Your task to perform on an android device: uninstall "Google Keep" Image 0: 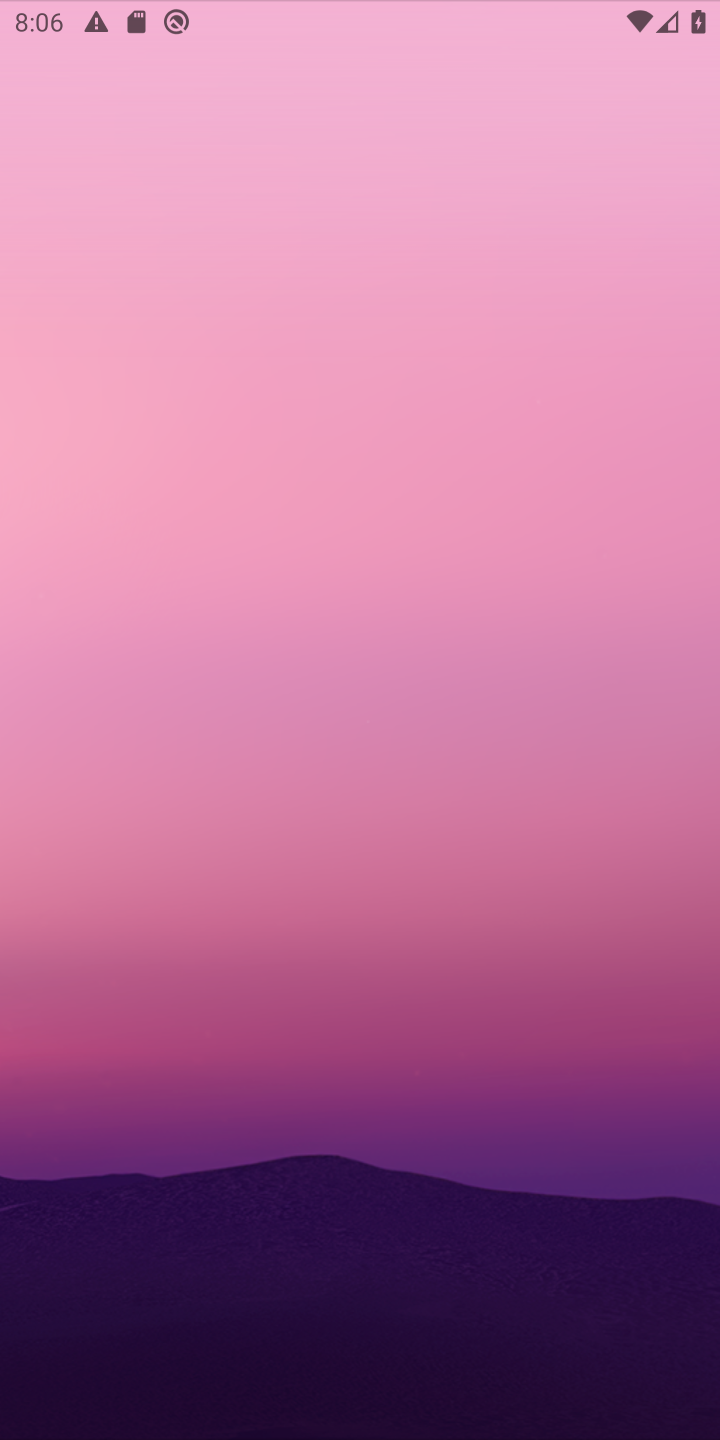
Step 0: click (560, 78)
Your task to perform on an android device: uninstall "Google Keep" Image 1: 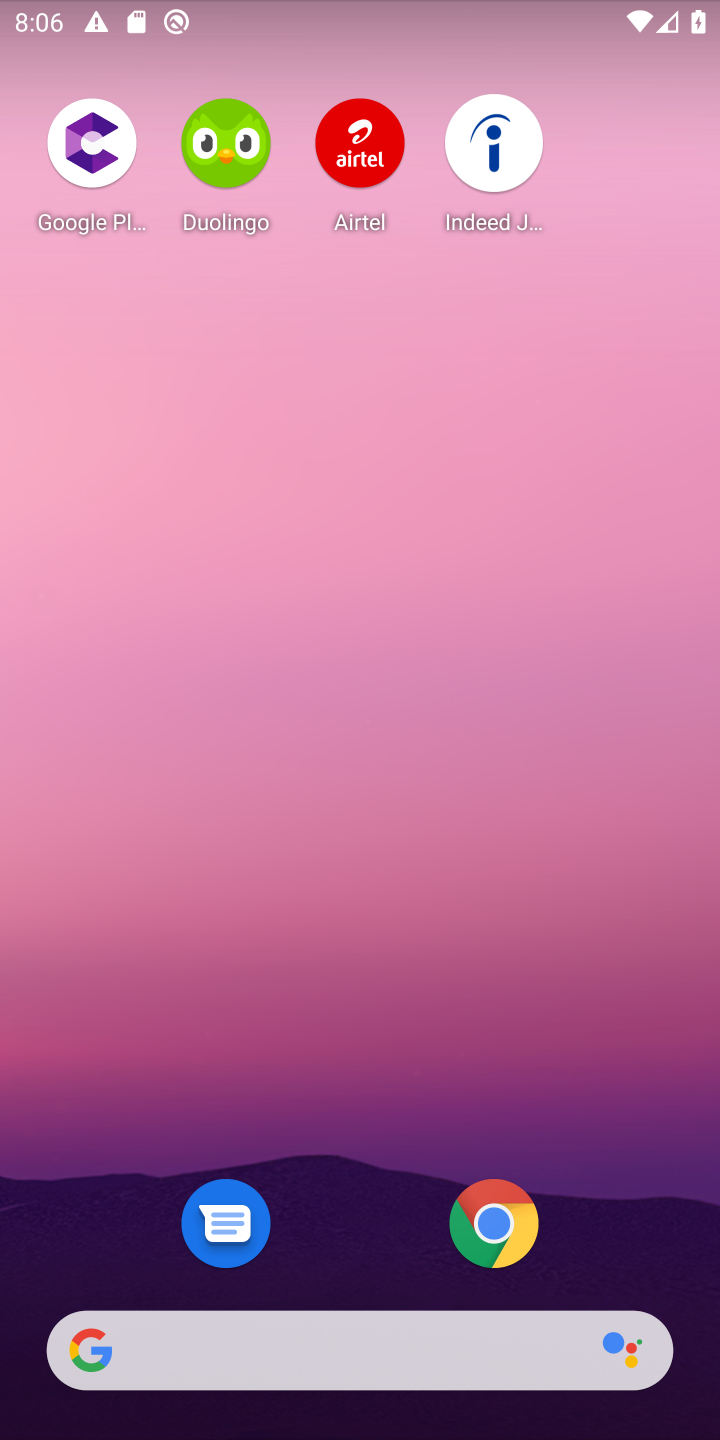
Step 1: click (563, 80)
Your task to perform on an android device: uninstall "Google Keep" Image 2: 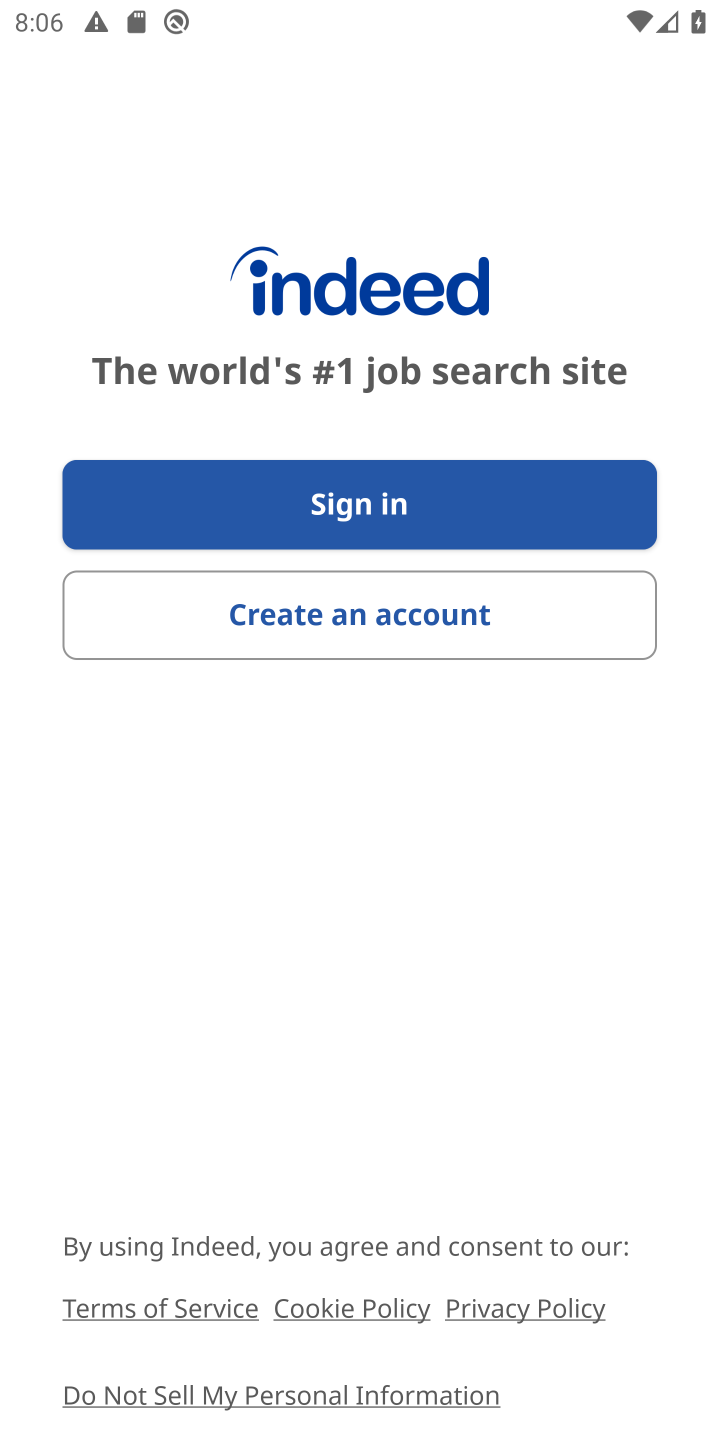
Step 2: press home button
Your task to perform on an android device: uninstall "Google Keep" Image 3: 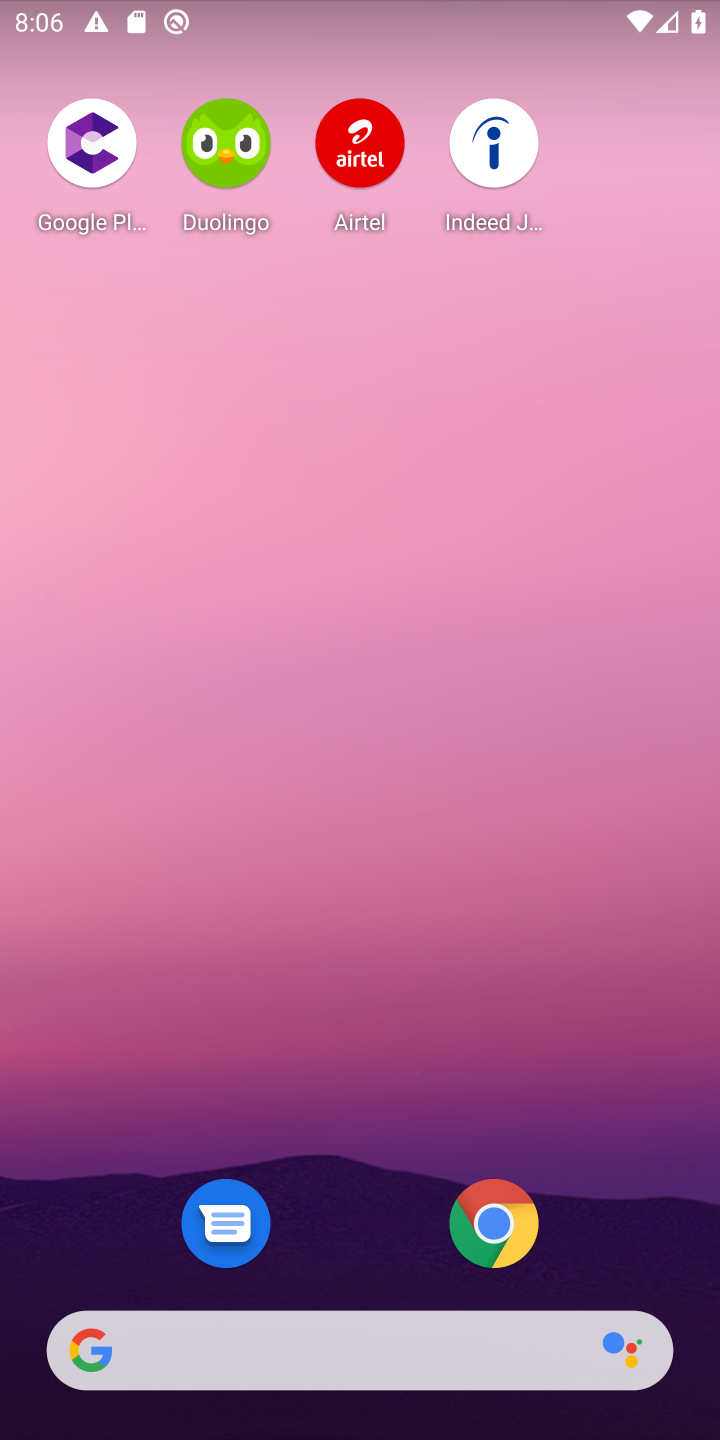
Step 3: drag from (358, 1193) to (389, 124)
Your task to perform on an android device: uninstall "Google Keep" Image 4: 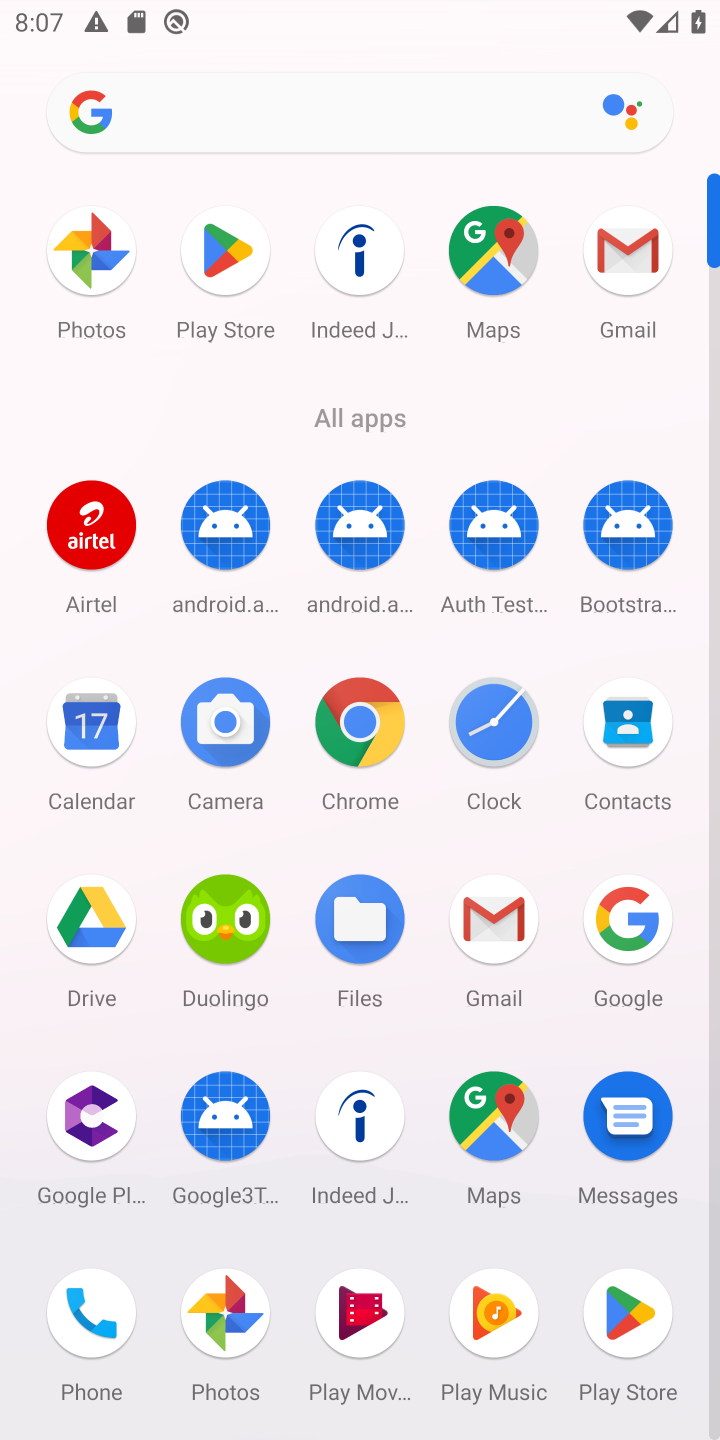
Step 4: click (616, 1304)
Your task to perform on an android device: uninstall "Google Keep" Image 5: 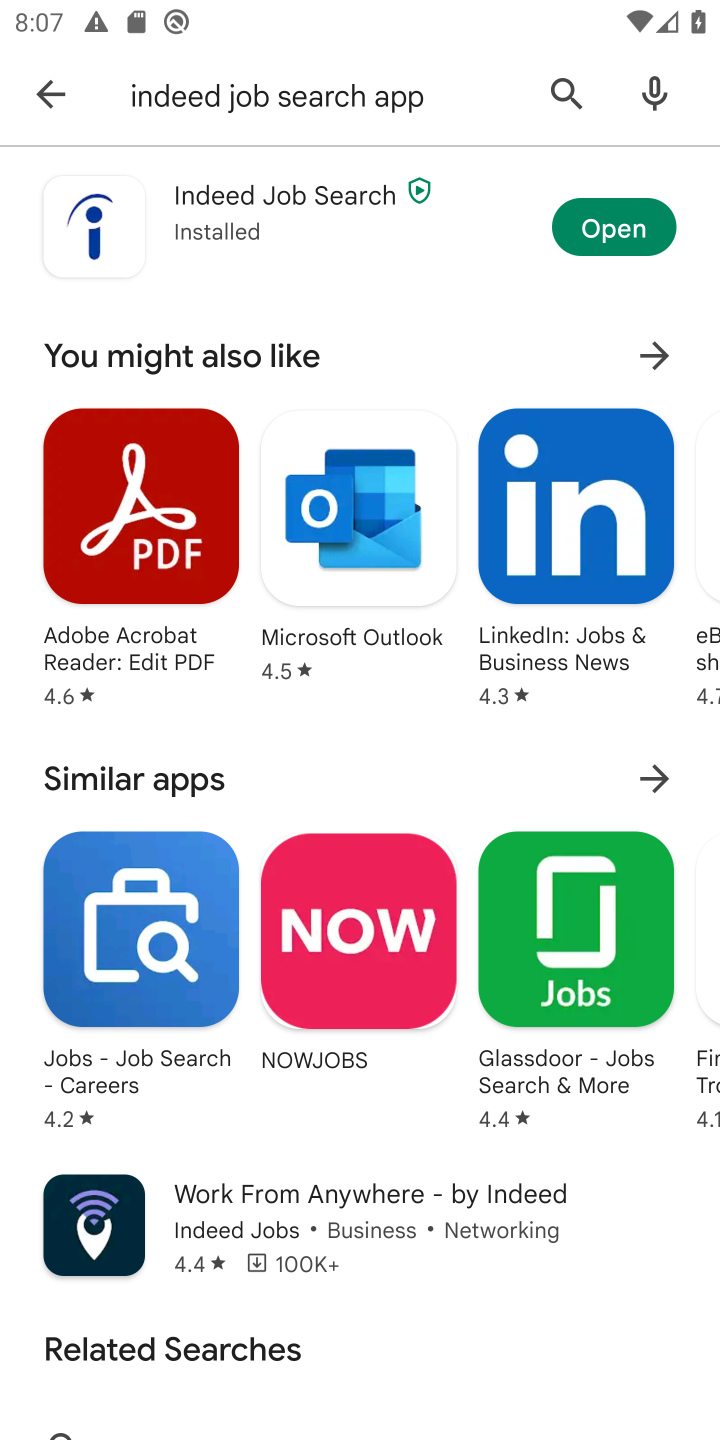
Step 5: click (564, 70)
Your task to perform on an android device: uninstall "Google Keep" Image 6: 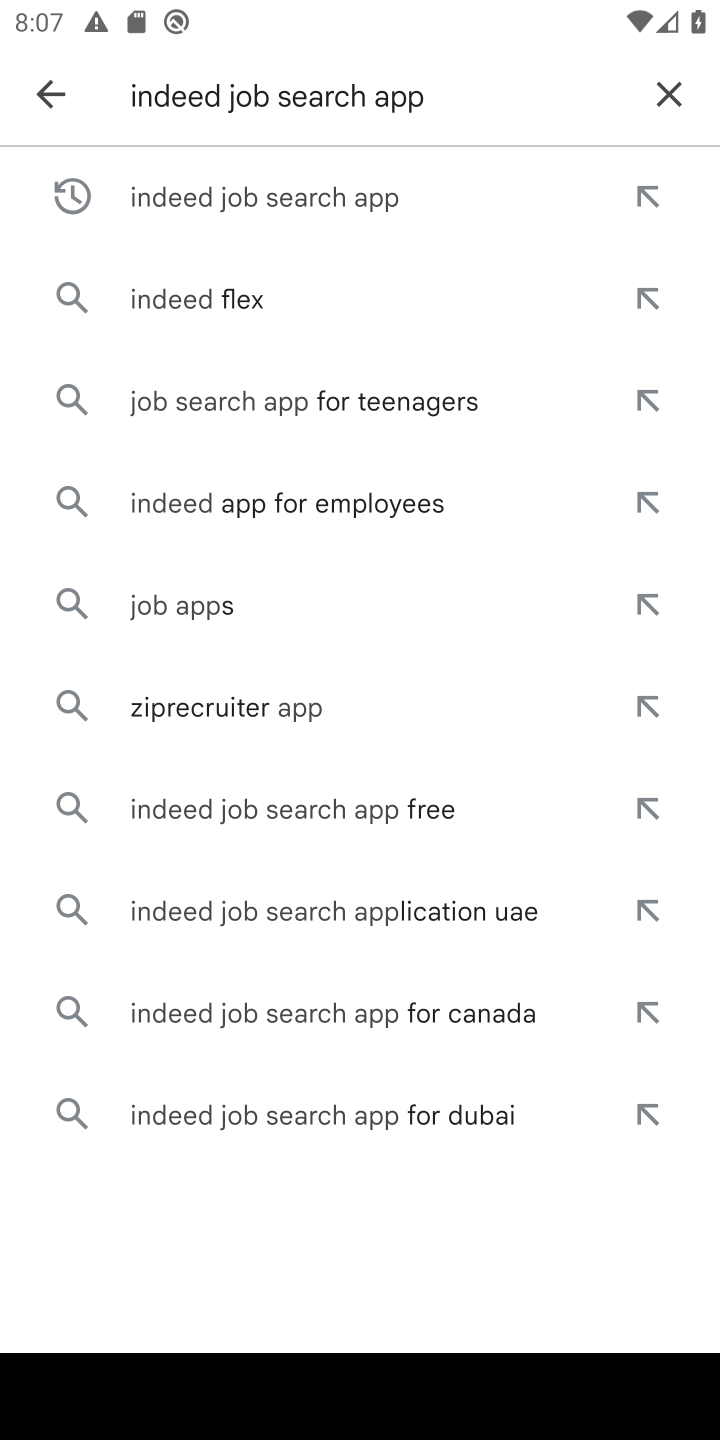
Step 6: click (660, 83)
Your task to perform on an android device: uninstall "Google Keep" Image 7: 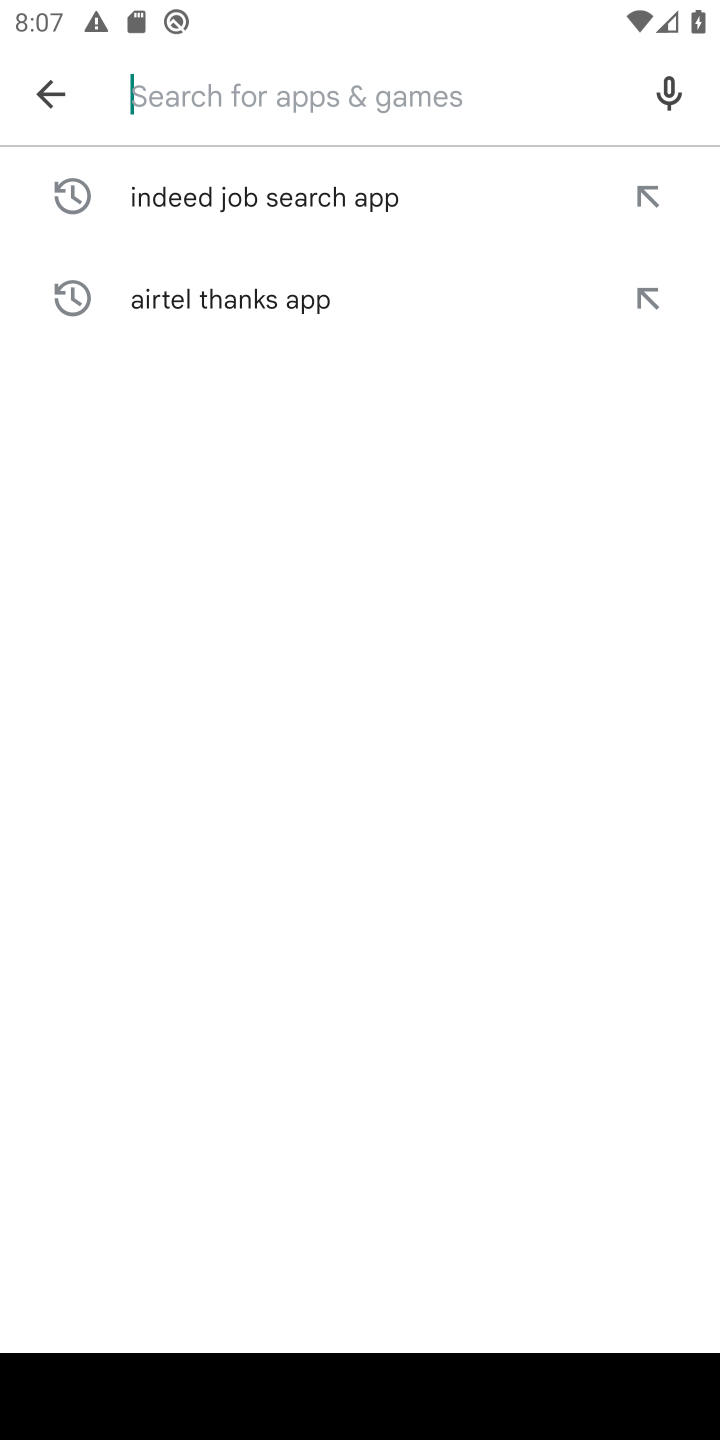
Step 7: click (664, 89)
Your task to perform on an android device: uninstall "Google Keep" Image 8: 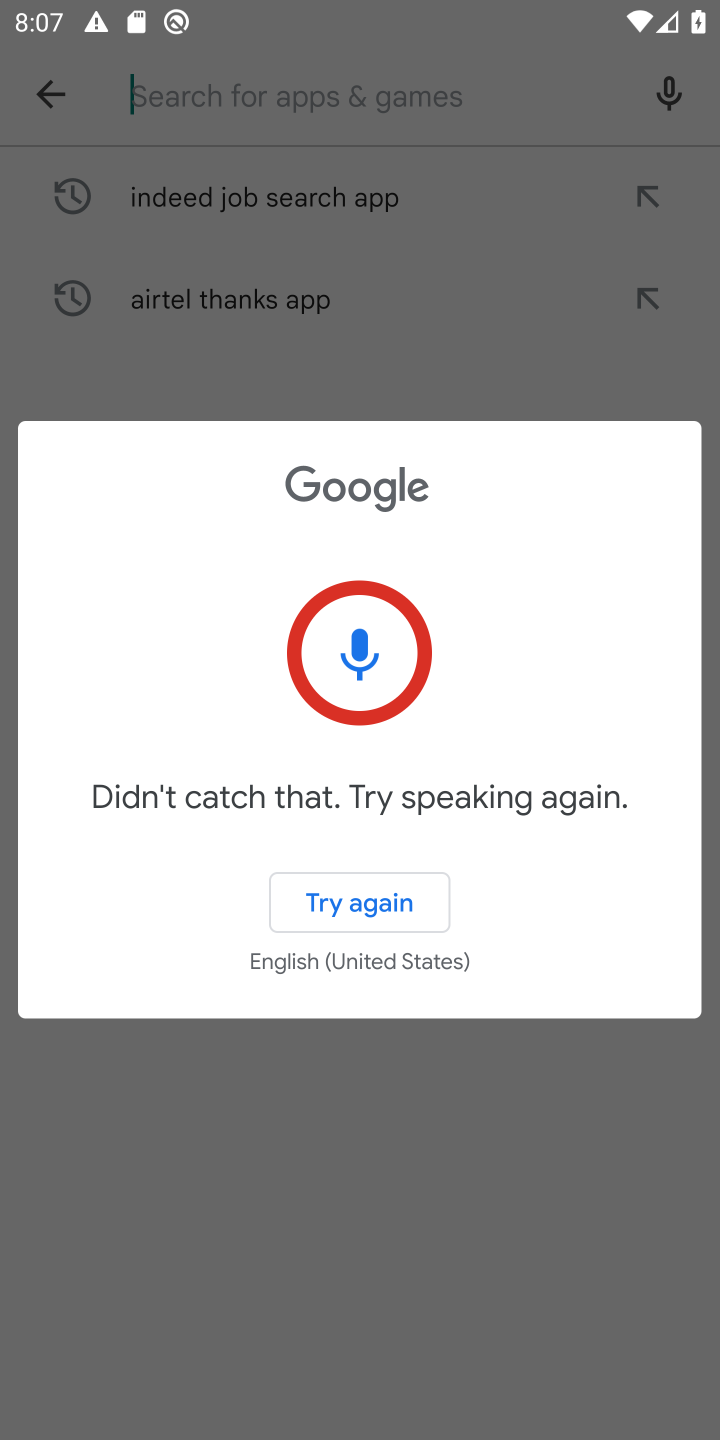
Step 8: click (340, 1087)
Your task to perform on an android device: uninstall "Google Keep" Image 9: 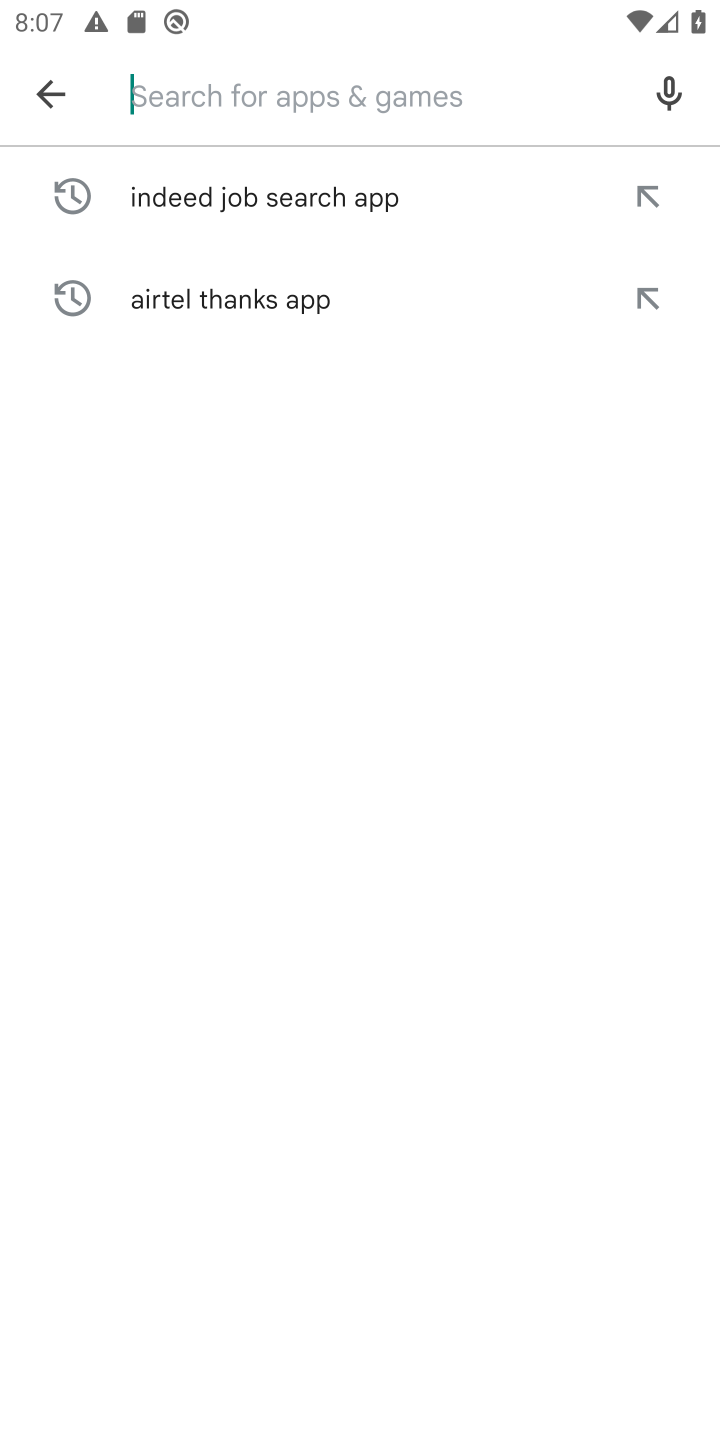
Step 9: type "Google Keep"
Your task to perform on an android device: uninstall "Google Keep" Image 10: 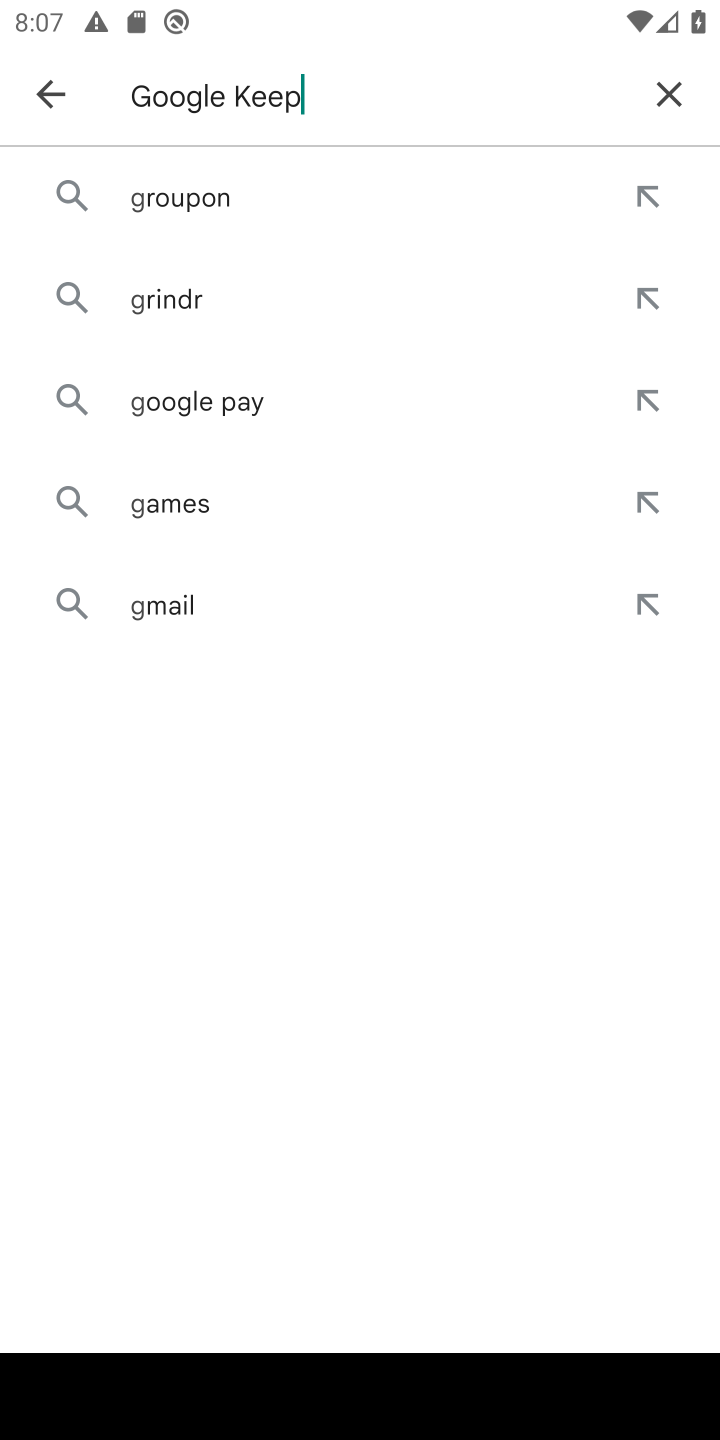
Step 10: type ""
Your task to perform on an android device: uninstall "Google Keep" Image 11: 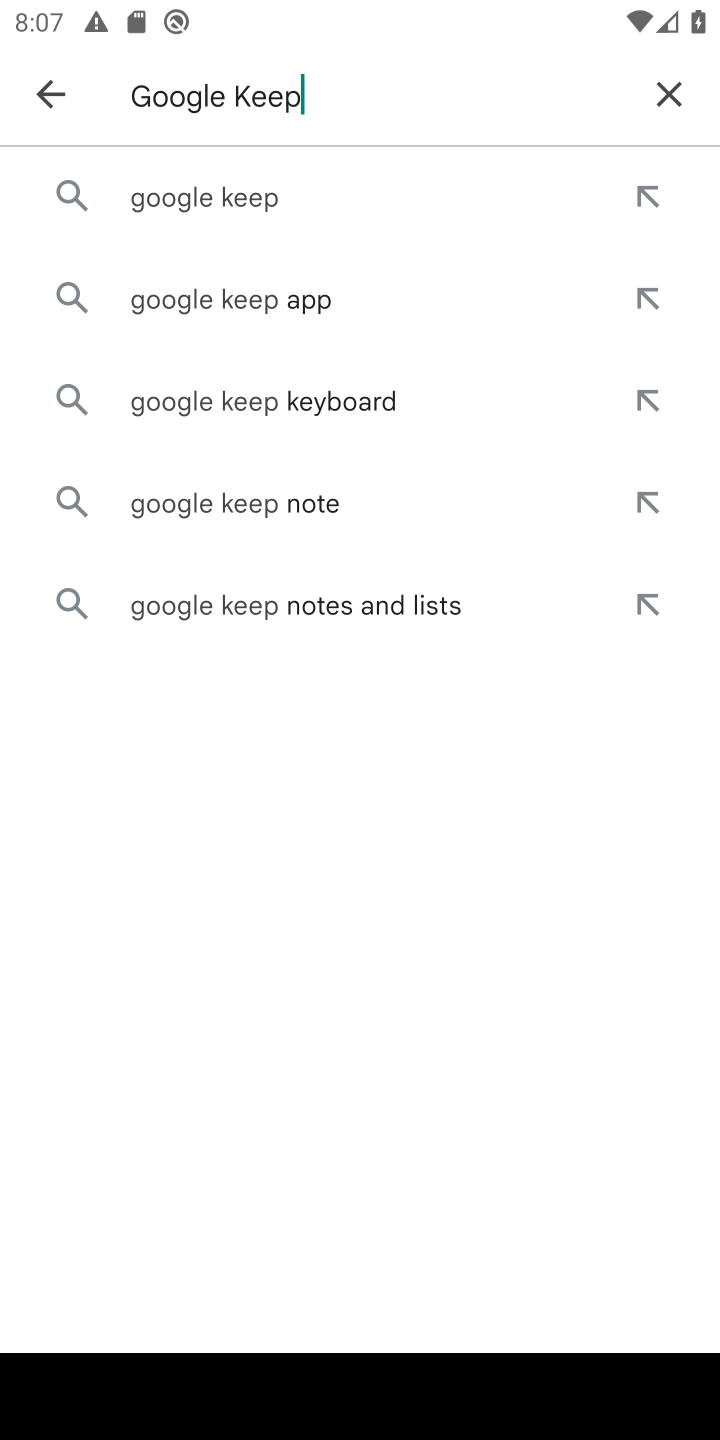
Step 11: click (241, 191)
Your task to perform on an android device: uninstall "Google Keep" Image 12: 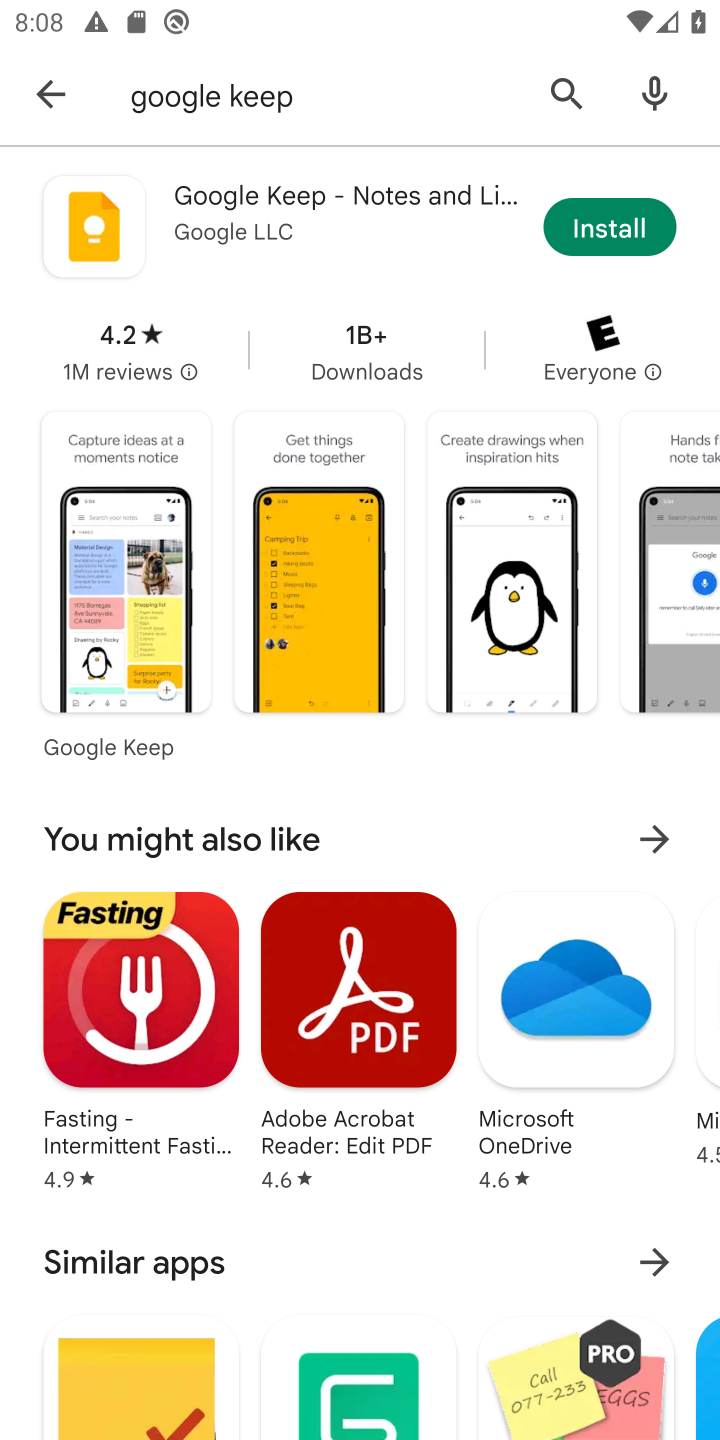
Step 12: task complete